Your task to perform on an android device: change notifications settings Image 0: 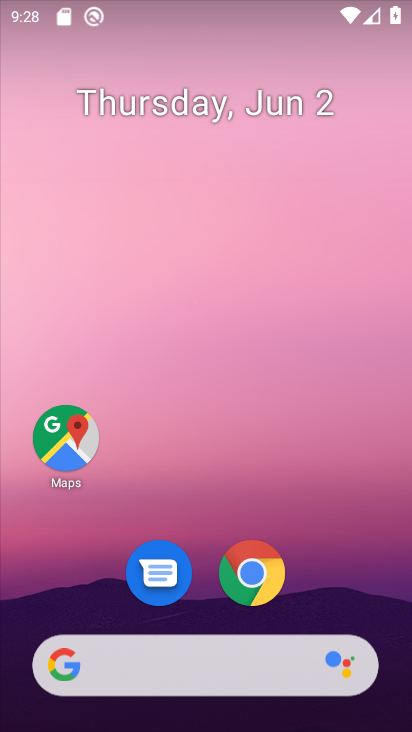
Step 0: drag from (328, 576) to (339, 67)
Your task to perform on an android device: change notifications settings Image 1: 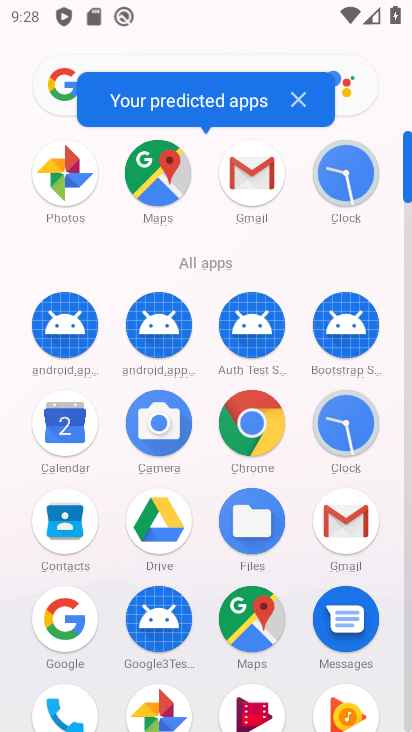
Step 1: drag from (213, 543) to (190, 160)
Your task to perform on an android device: change notifications settings Image 2: 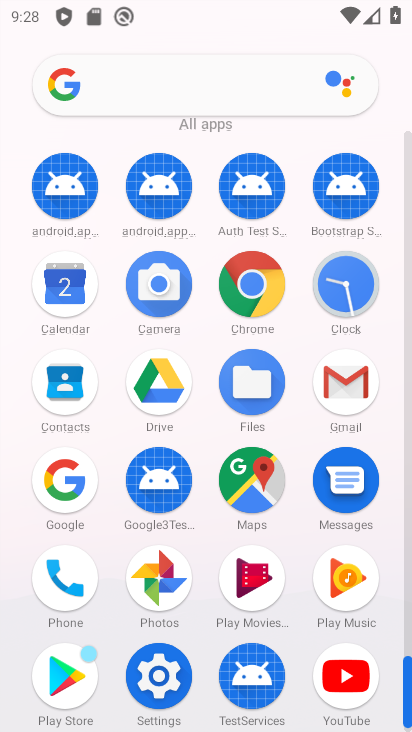
Step 2: click (162, 675)
Your task to perform on an android device: change notifications settings Image 3: 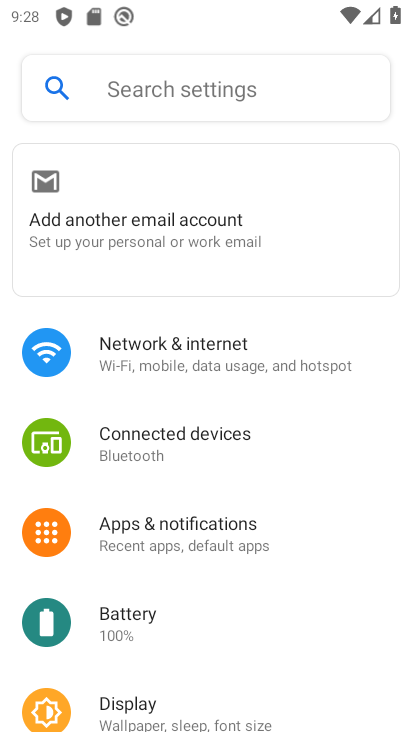
Step 3: click (177, 530)
Your task to perform on an android device: change notifications settings Image 4: 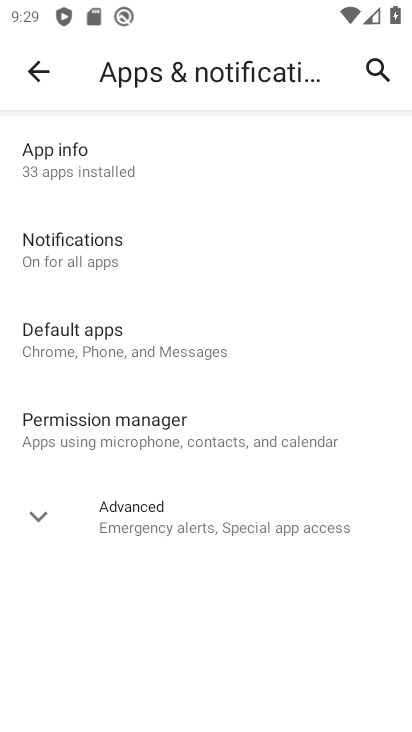
Step 4: click (89, 237)
Your task to perform on an android device: change notifications settings Image 5: 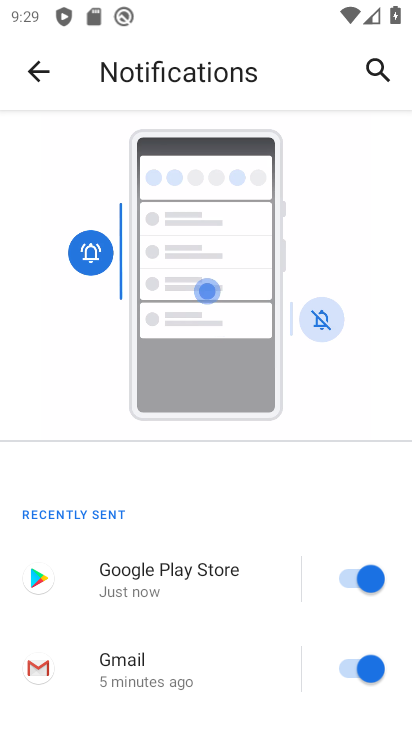
Step 5: drag from (117, 632) to (139, 359)
Your task to perform on an android device: change notifications settings Image 6: 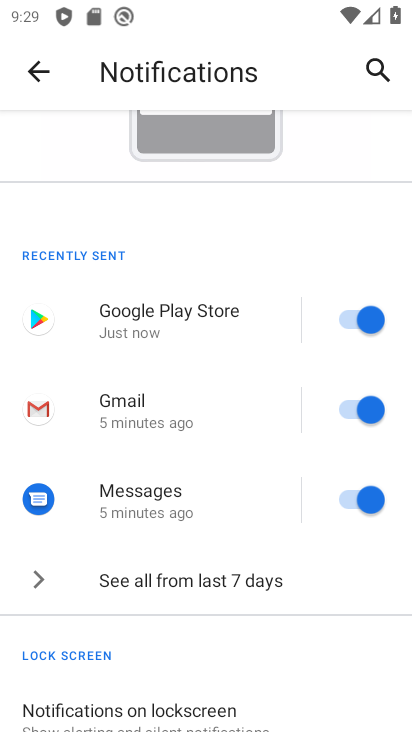
Step 6: drag from (111, 720) to (145, 313)
Your task to perform on an android device: change notifications settings Image 7: 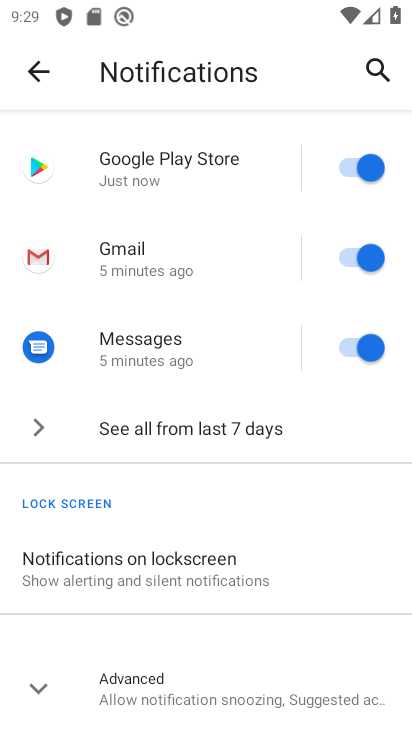
Step 7: click (116, 691)
Your task to perform on an android device: change notifications settings Image 8: 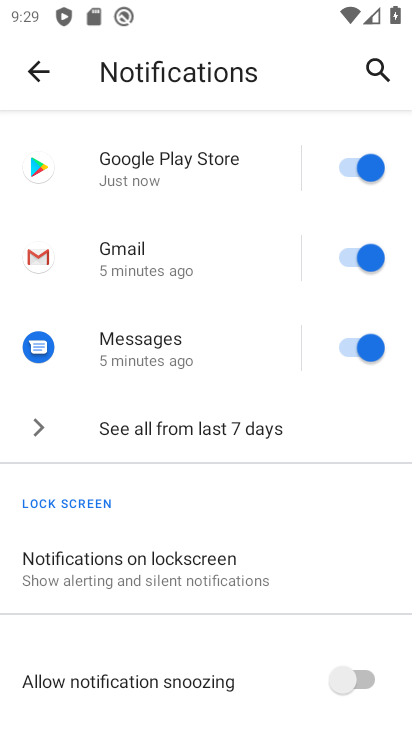
Step 8: click (364, 256)
Your task to perform on an android device: change notifications settings Image 9: 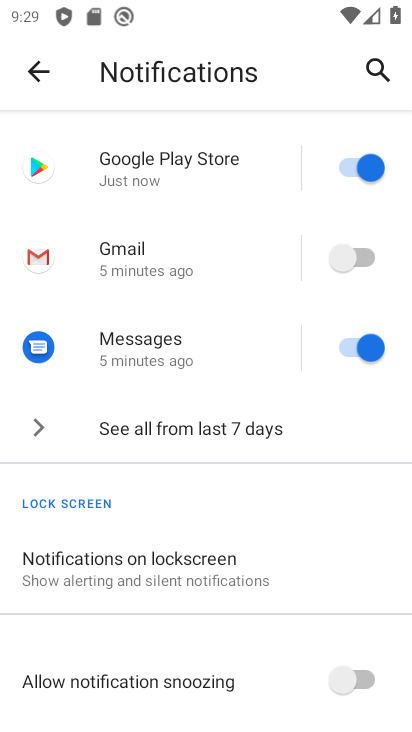
Step 9: click (373, 338)
Your task to perform on an android device: change notifications settings Image 10: 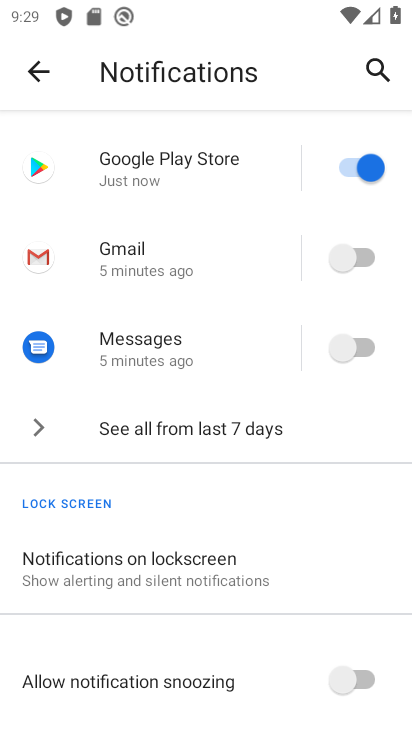
Step 10: task complete